Your task to perform on an android device: open a bookmark in the chrome app Image 0: 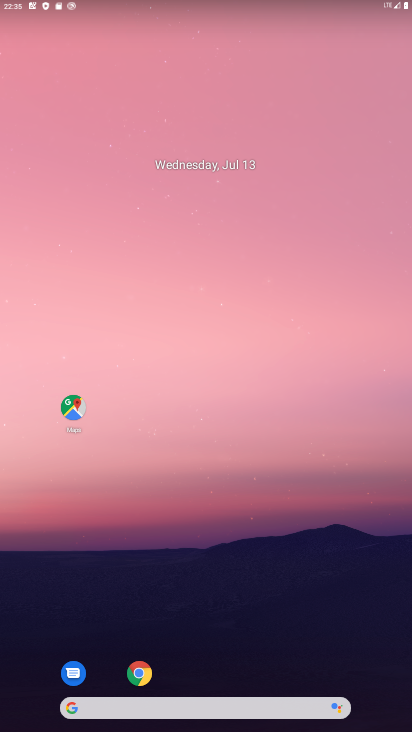
Step 0: click (291, 202)
Your task to perform on an android device: open a bookmark in the chrome app Image 1: 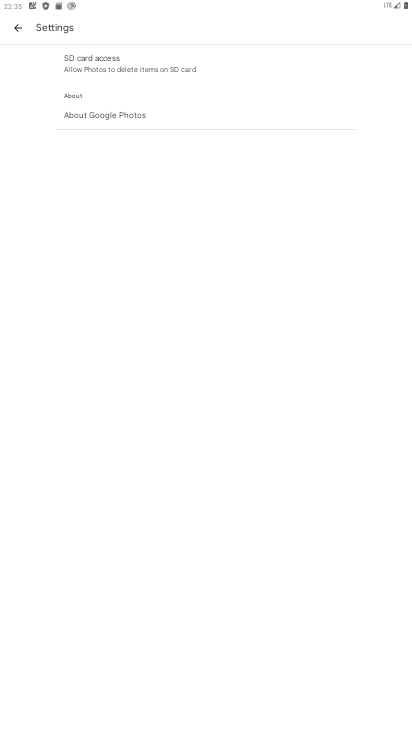
Step 1: drag from (234, 419) to (182, 19)
Your task to perform on an android device: open a bookmark in the chrome app Image 2: 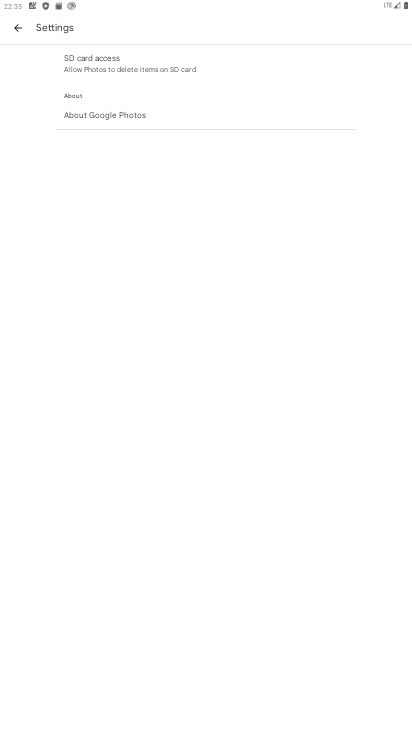
Step 2: press home button
Your task to perform on an android device: open a bookmark in the chrome app Image 3: 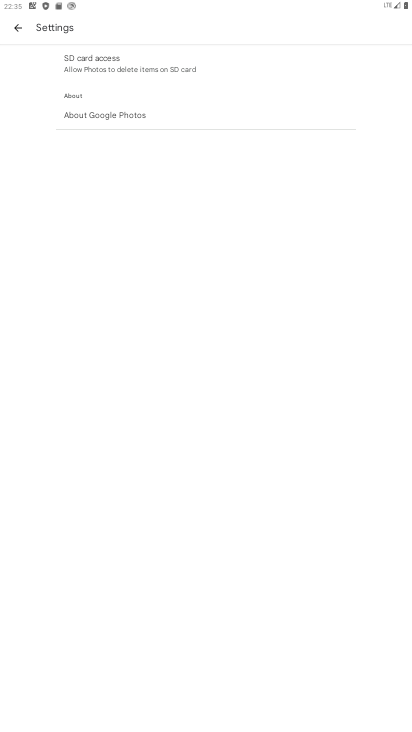
Step 3: press home button
Your task to perform on an android device: open a bookmark in the chrome app Image 4: 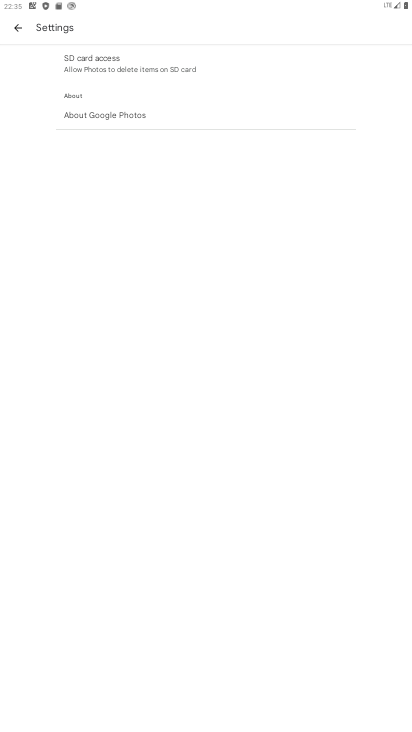
Step 4: drag from (143, 496) to (329, 18)
Your task to perform on an android device: open a bookmark in the chrome app Image 5: 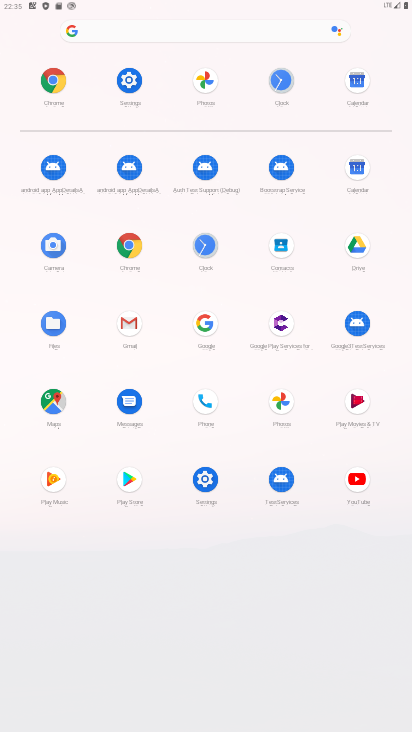
Step 5: click (130, 242)
Your task to perform on an android device: open a bookmark in the chrome app Image 6: 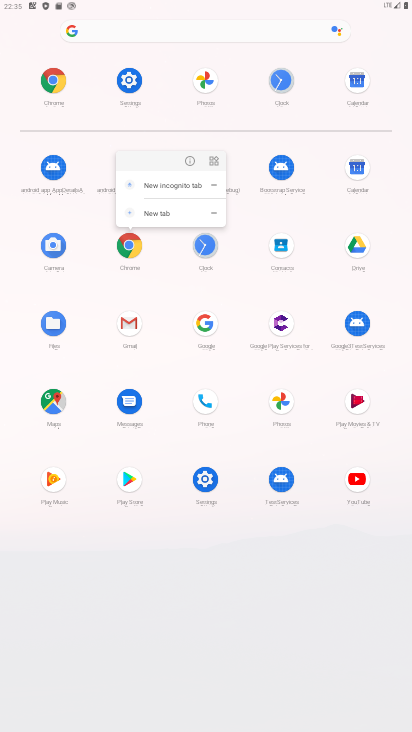
Step 6: click (185, 154)
Your task to perform on an android device: open a bookmark in the chrome app Image 7: 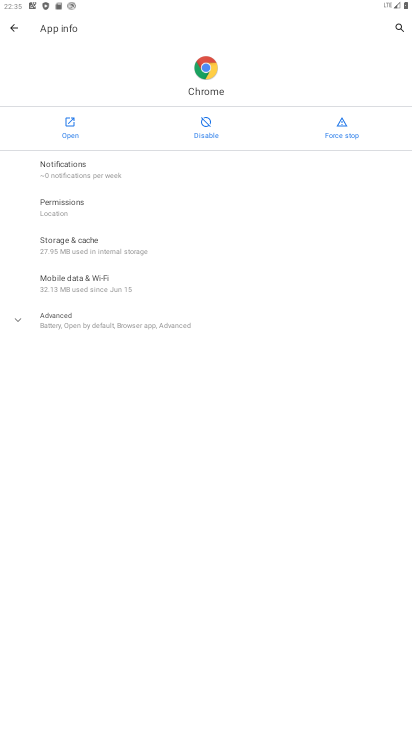
Step 7: click (58, 117)
Your task to perform on an android device: open a bookmark in the chrome app Image 8: 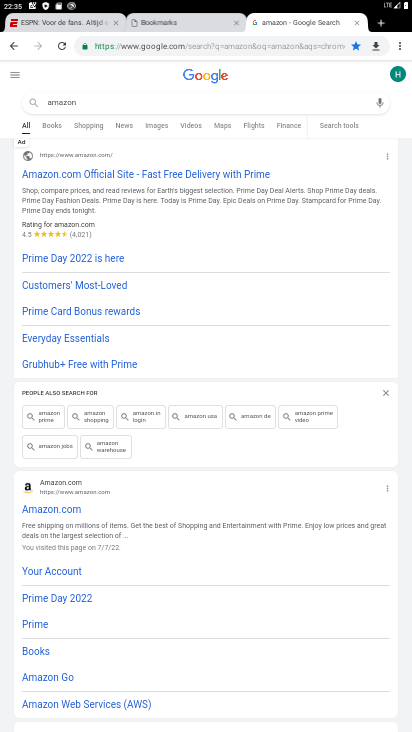
Step 8: click (396, 45)
Your task to perform on an android device: open a bookmark in the chrome app Image 9: 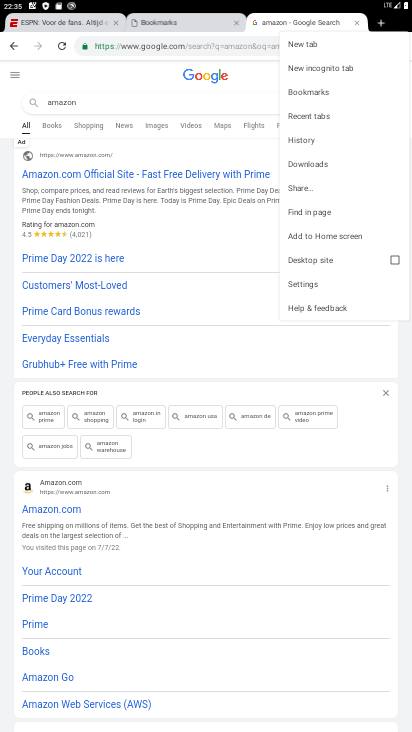
Step 9: click (326, 91)
Your task to perform on an android device: open a bookmark in the chrome app Image 10: 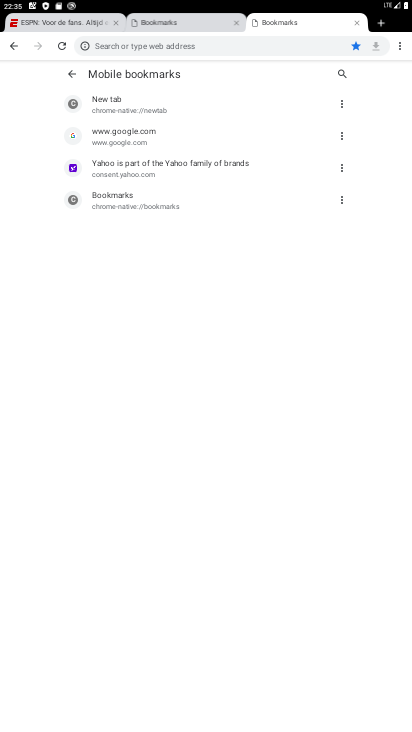
Step 10: task complete